Your task to perform on an android device: Open Google Maps and go to "Timeline" Image 0: 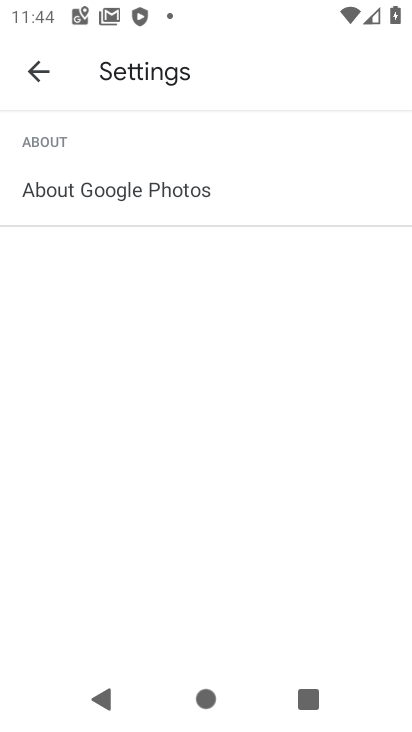
Step 0: press home button
Your task to perform on an android device: Open Google Maps and go to "Timeline" Image 1: 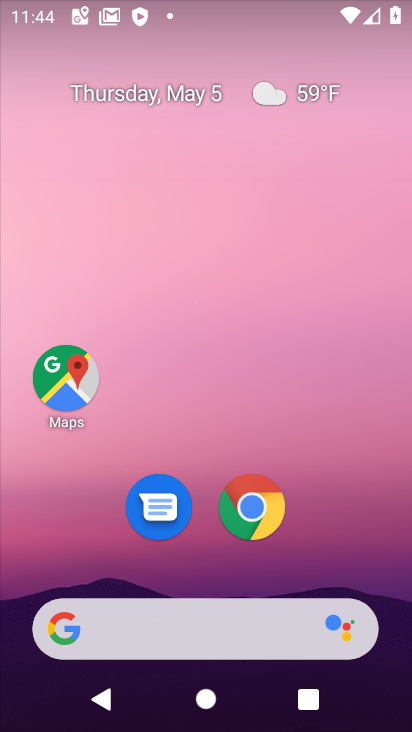
Step 1: click (50, 395)
Your task to perform on an android device: Open Google Maps and go to "Timeline" Image 2: 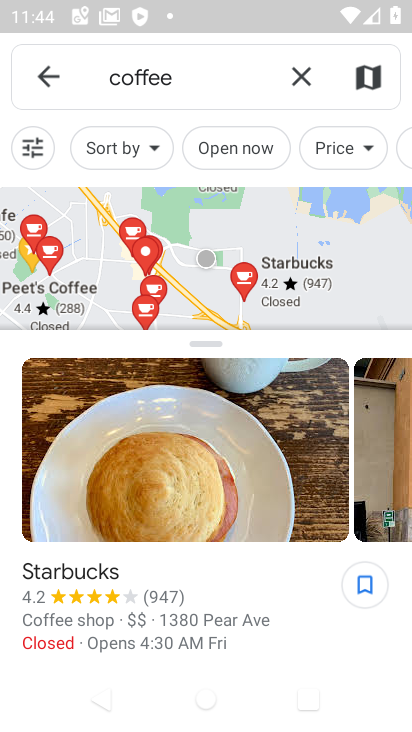
Step 2: click (290, 76)
Your task to perform on an android device: Open Google Maps and go to "Timeline" Image 3: 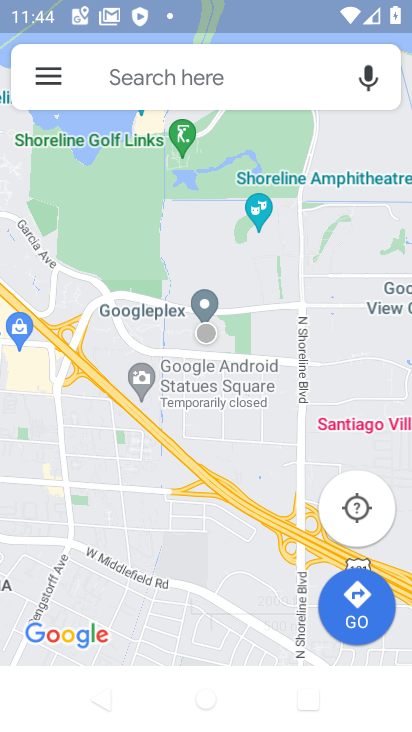
Step 3: click (45, 73)
Your task to perform on an android device: Open Google Maps and go to "Timeline" Image 4: 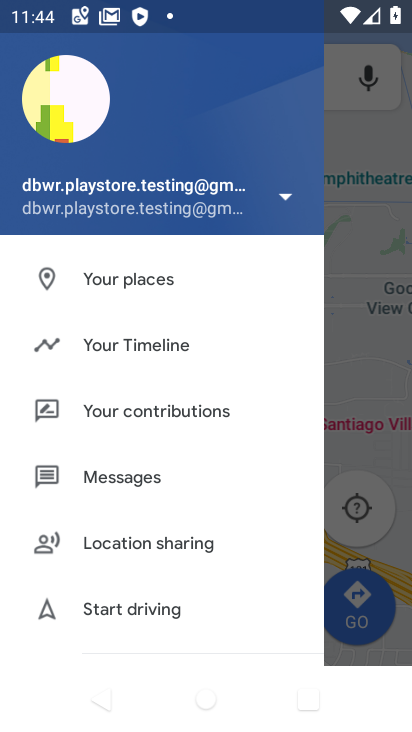
Step 4: click (116, 341)
Your task to perform on an android device: Open Google Maps and go to "Timeline" Image 5: 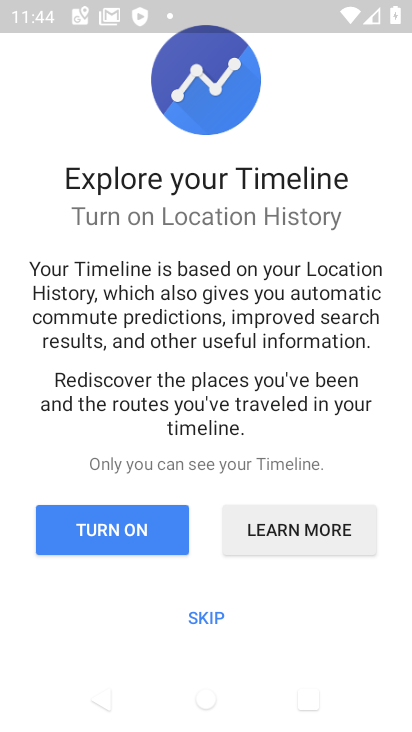
Step 5: click (200, 613)
Your task to perform on an android device: Open Google Maps and go to "Timeline" Image 6: 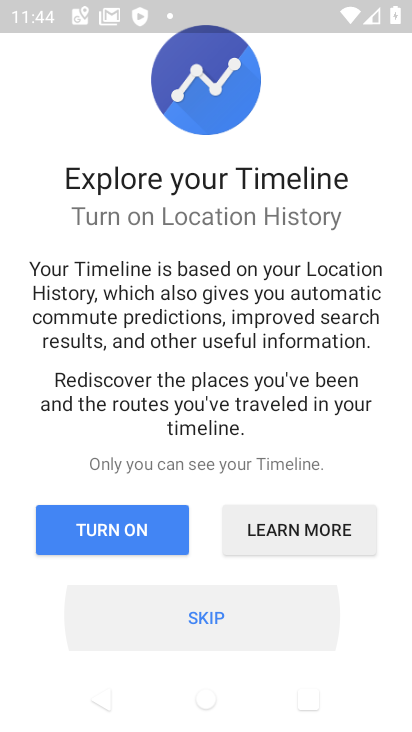
Step 6: click (200, 613)
Your task to perform on an android device: Open Google Maps and go to "Timeline" Image 7: 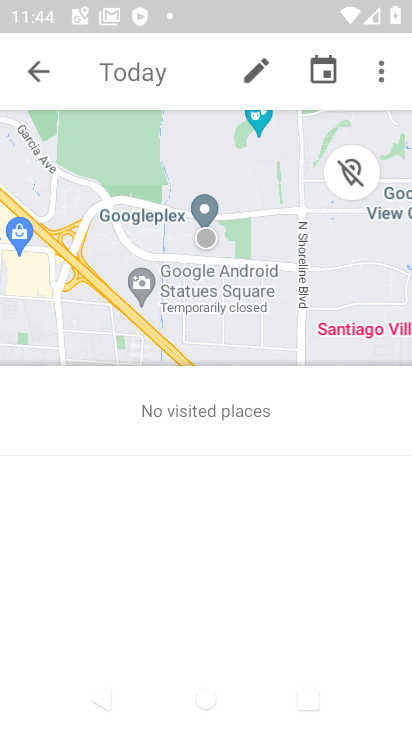
Step 7: task complete